Your task to perform on an android device: turn on wifi Image 0: 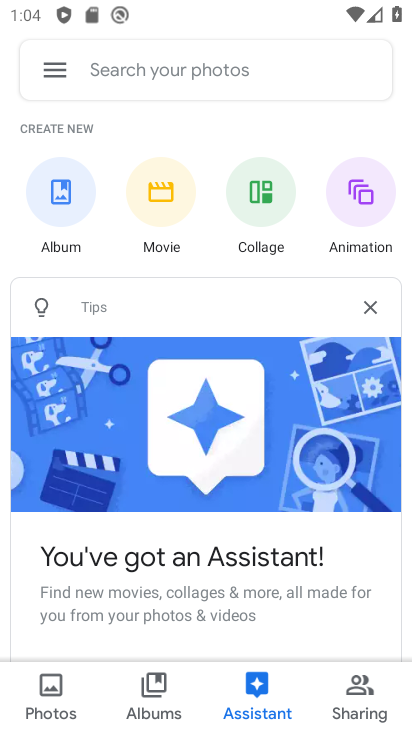
Step 0: press home button
Your task to perform on an android device: turn on wifi Image 1: 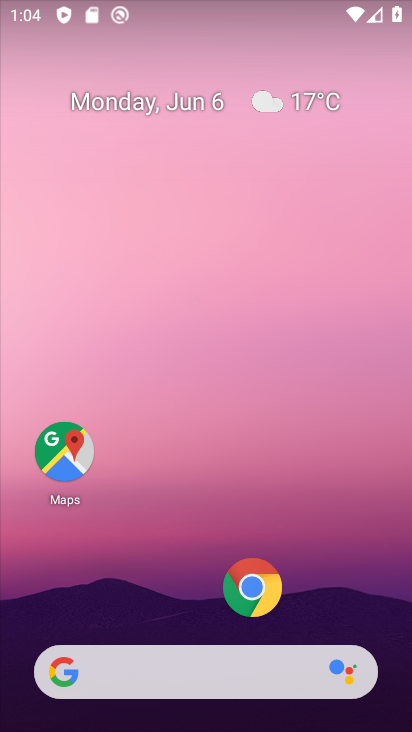
Step 1: drag from (194, 623) to (238, 11)
Your task to perform on an android device: turn on wifi Image 2: 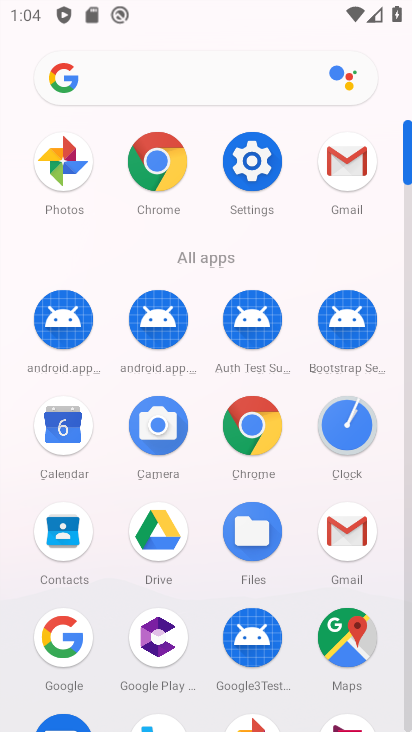
Step 2: click (262, 171)
Your task to perform on an android device: turn on wifi Image 3: 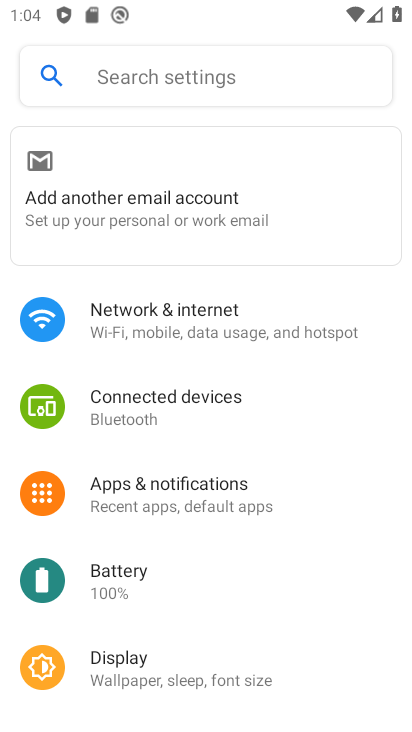
Step 3: click (216, 329)
Your task to perform on an android device: turn on wifi Image 4: 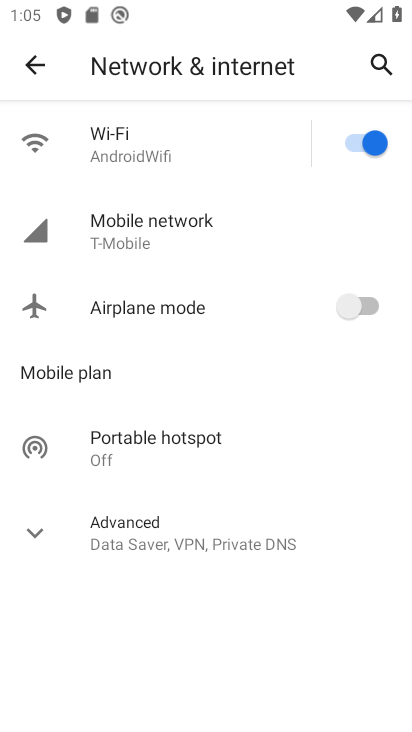
Step 4: task complete